Your task to perform on an android device: uninstall "Speedtest by Ookla" Image 0: 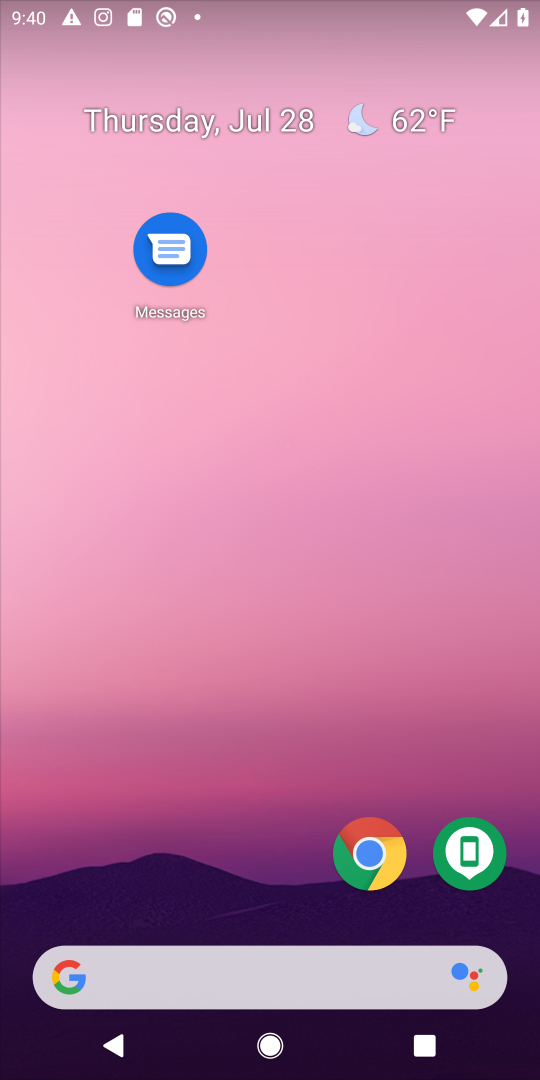
Step 0: drag from (244, 726) to (244, 299)
Your task to perform on an android device: uninstall "Speedtest by Ookla" Image 1: 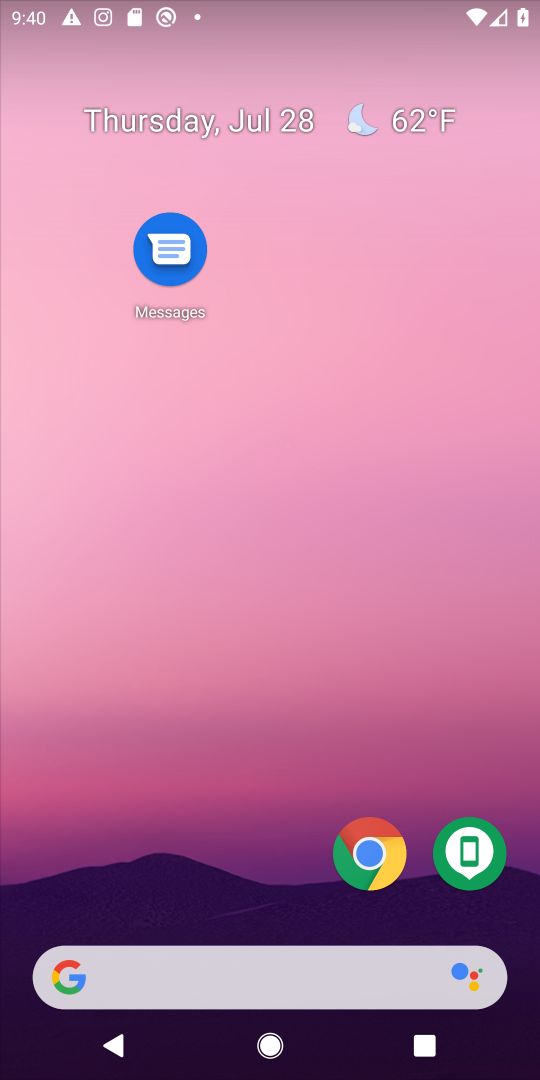
Step 1: drag from (265, 772) to (265, 307)
Your task to perform on an android device: uninstall "Speedtest by Ookla" Image 2: 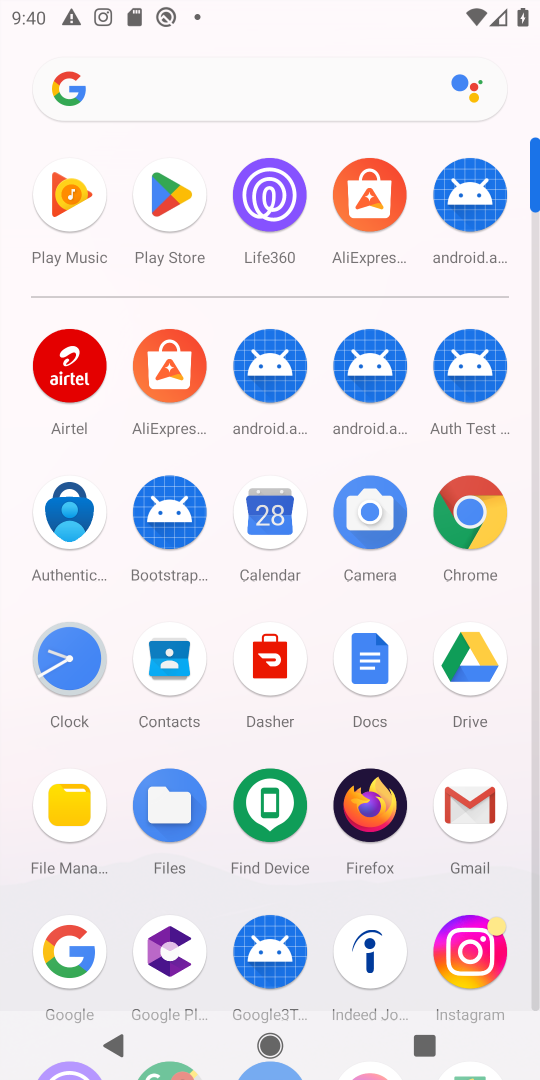
Step 2: click (173, 204)
Your task to perform on an android device: uninstall "Speedtest by Ookla" Image 3: 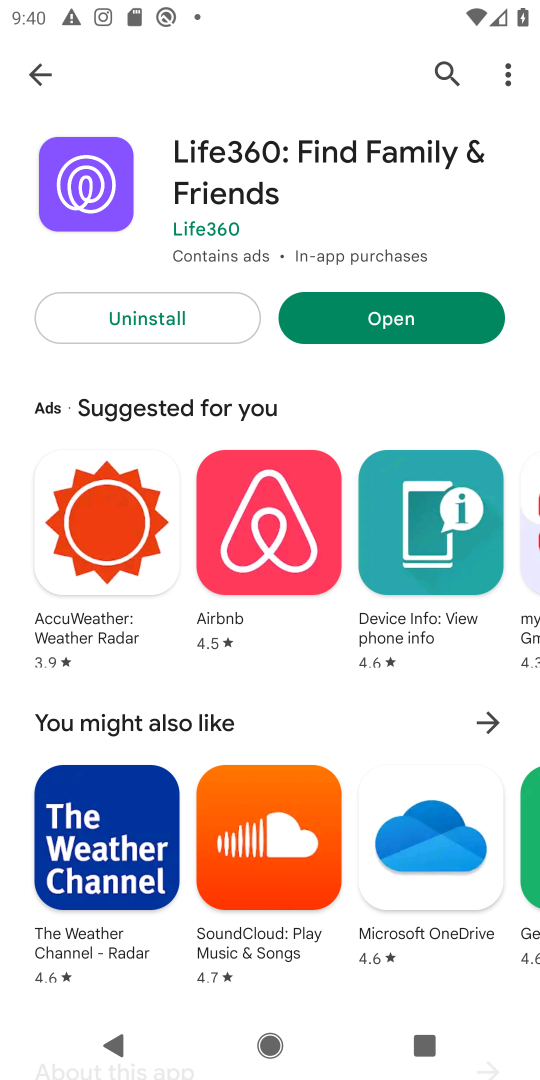
Step 3: click (42, 76)
Your task to perform on an android device: uninstall "Speedtest by Ookla" Image 4: 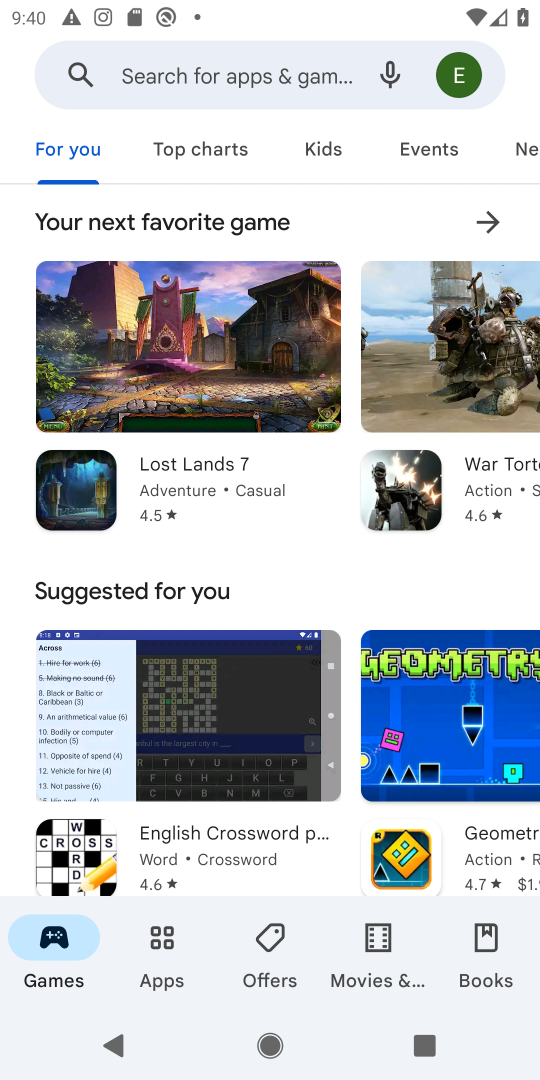
Step 4: click (222, 76)
Your task to perform on an android device: uninstall "Speedtest by Ookla" Image 5: 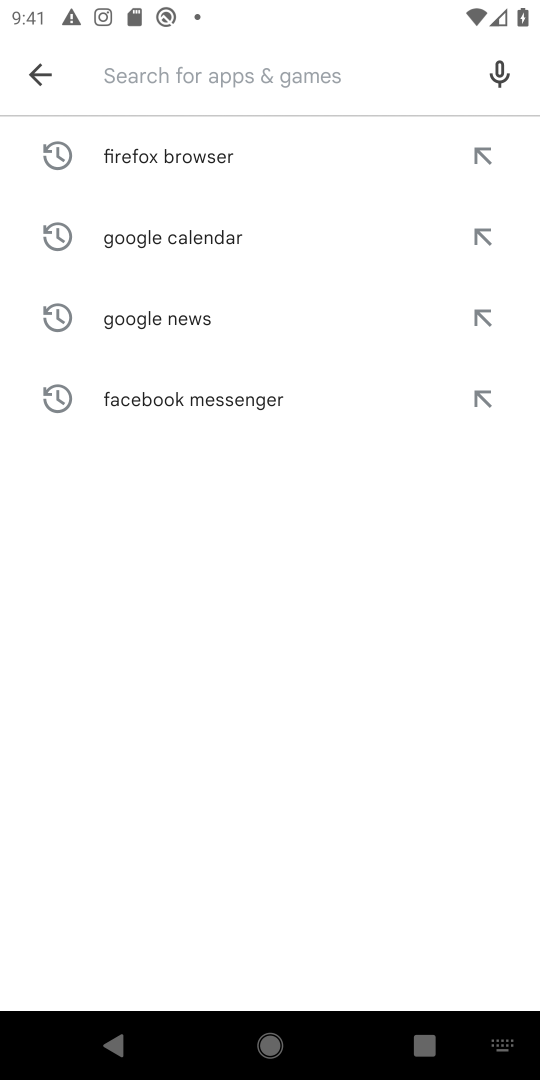
Step 5: type "Speedtest by Ookla"
Your task to perform on an android device: uninstall "Speedtest by Ookla" Image 6: 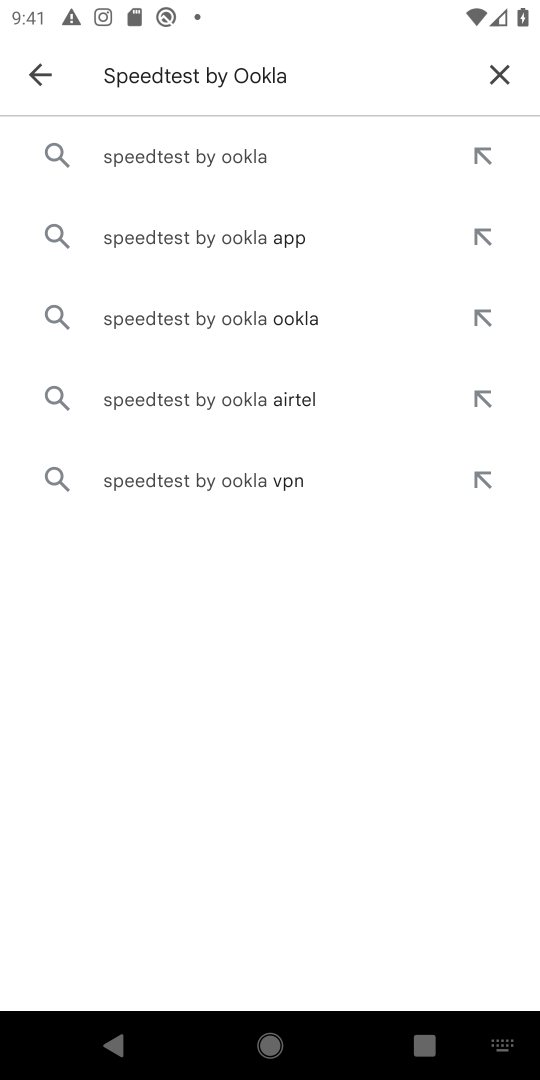
Step 6: click (167, 163)
Your task to perform on an android device: uninstall "Speedtest by Ookla" Image 7: 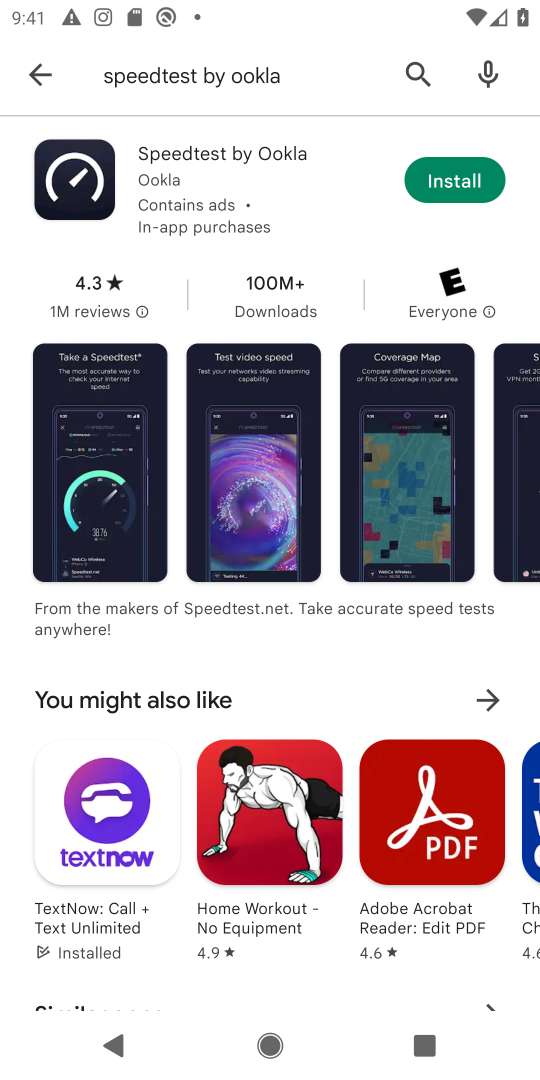
Step 7: click (436, 174)
Your task to perform on an android device: uninstall "Speedtest by Ookla" Image 8: 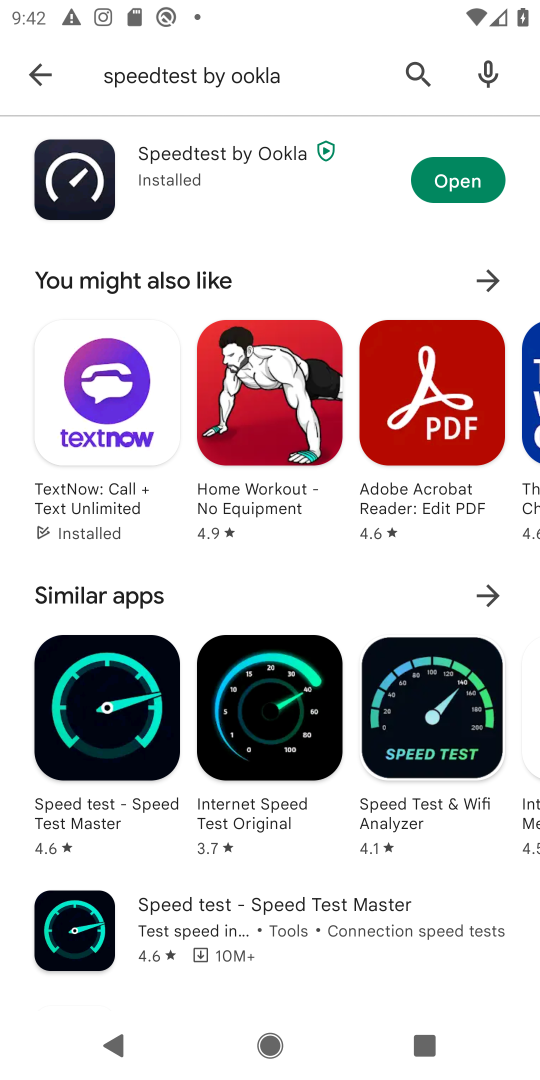
Step 8: click (479, 171)
Your task to perform on an android device: uninstall "Speedtest by Ookla" Image 9: 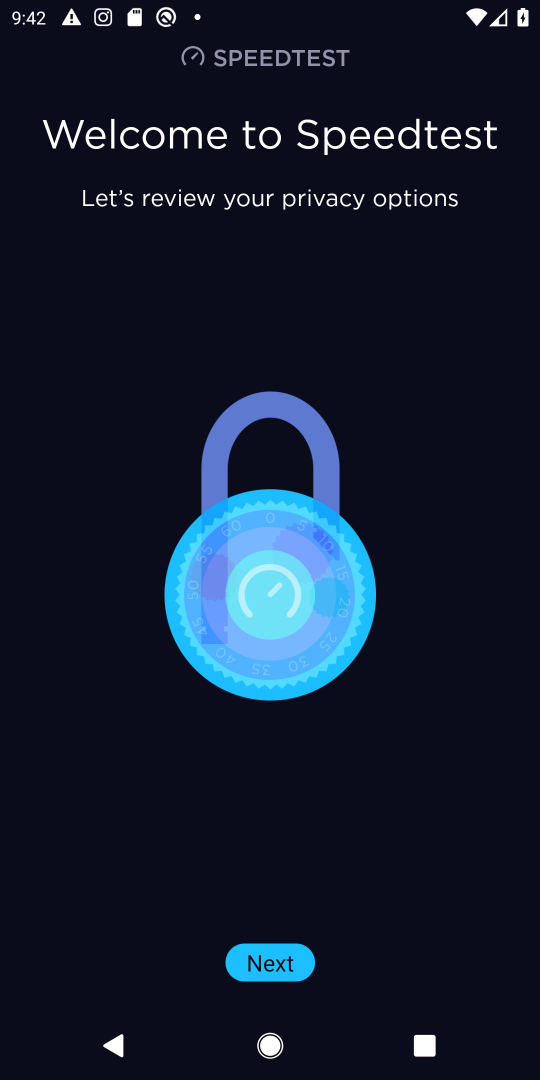
Step 9: press back button
Your task to perform on an android device: uninstall "Speedtest by Ookla" Image 10: 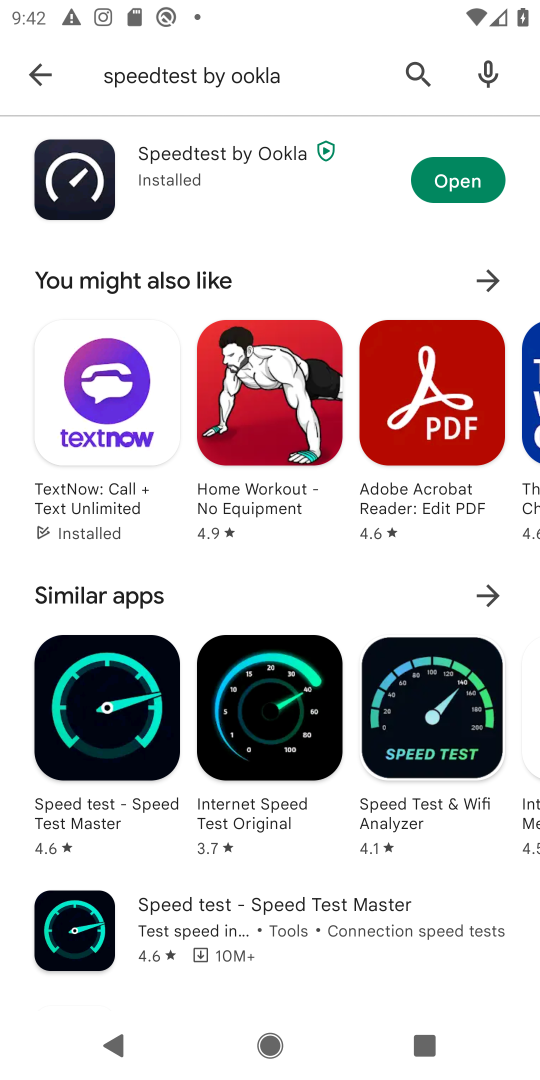
Step 10: click (136, 166)
Your task to perform on an android device: uninstall "Speedtest by Ookla" Image 11: 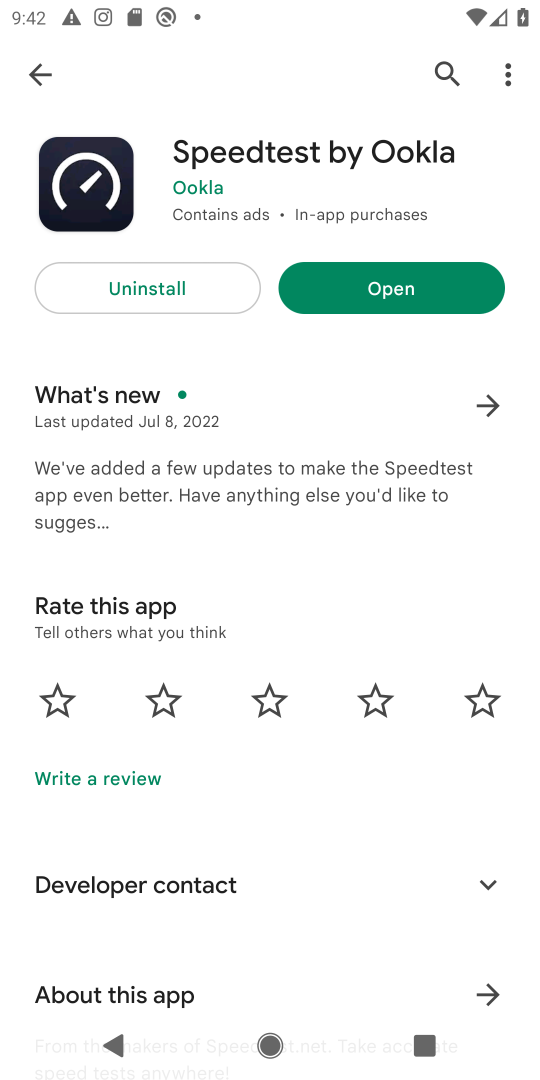
Step 11: click (121, 282)
Your task to perform on an android device: uninstall "Speedtest by Ookla" Image 12: 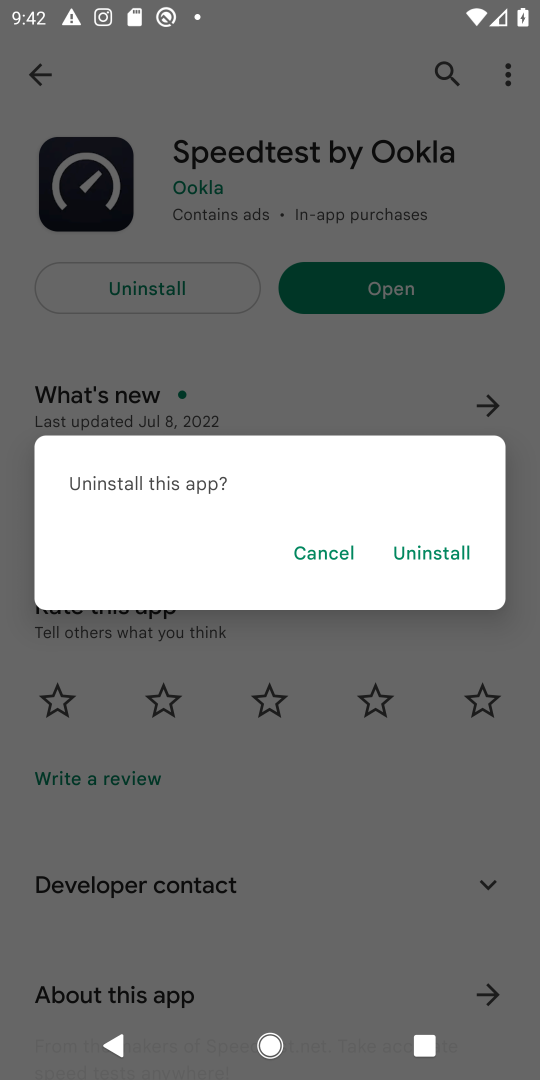
Step 12: click (416, 561)
Your task to perform on an android device: uninstall "Speedtest by Ookla" Image 13: 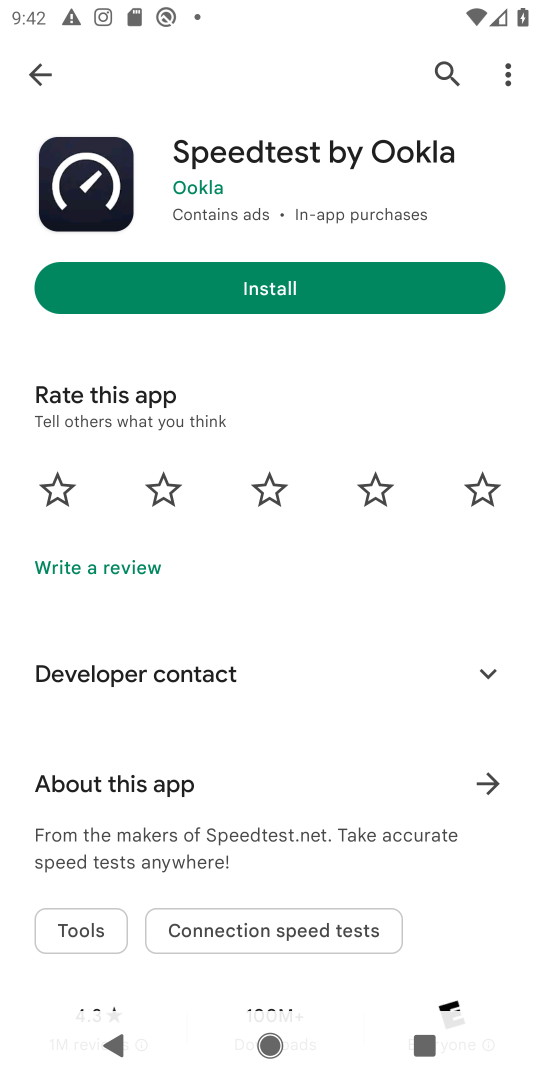
Step 13: task complete